Your task to perform on an android device: Open my contact list Image 0: 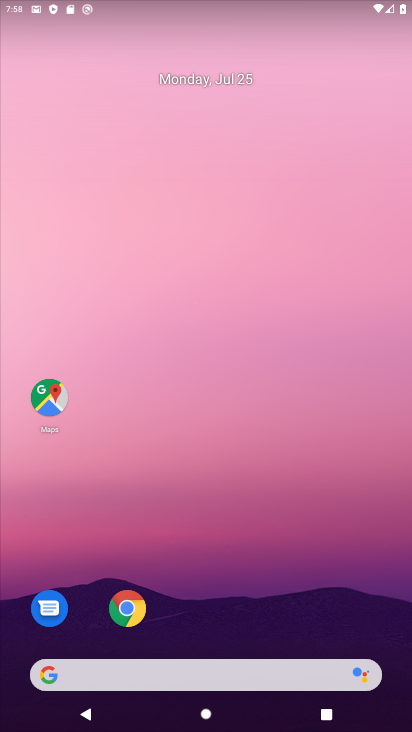
Step 0: drag from (143, 637) to (226, 187)
Your task to perform on an android device: Open my contact list Image 1: 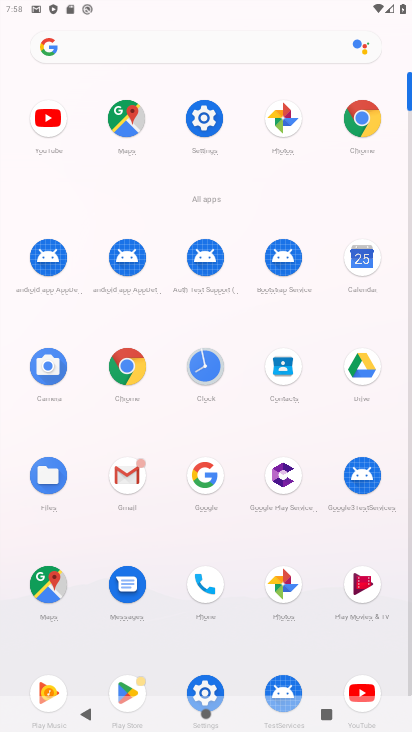
Step 1: click (282, 363)
Your task to perform on an android device: Open my contact list Image 2: 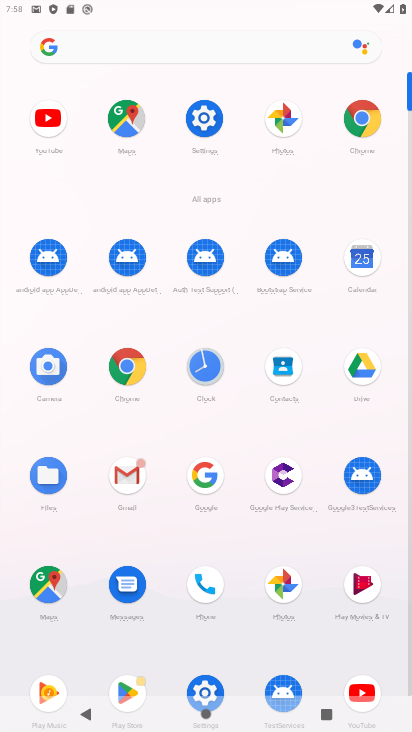
Step 2: click (282, 363)
Your task to perform on an android device: Open my contact list Image 3: 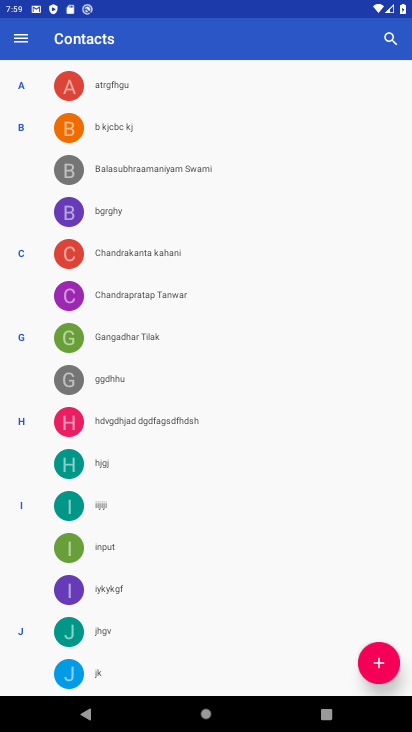
Step 3: task complete